Your task to perform on an android device: allow cookies in the chrome app Image 0: 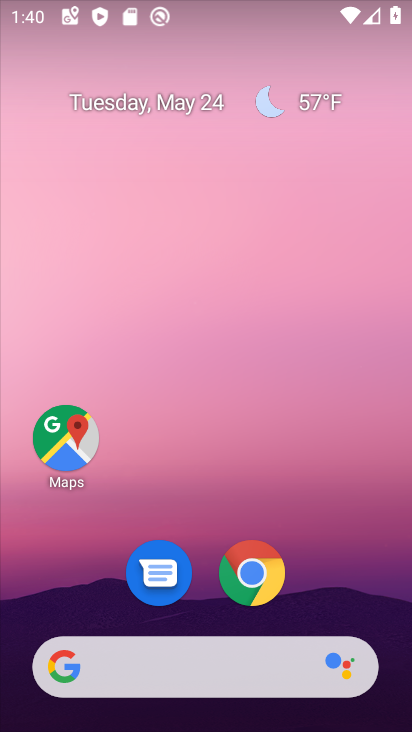
Step 0: click (262, 582)
Your task to perform on an android device: allow cookies in the chrome app Image 1: 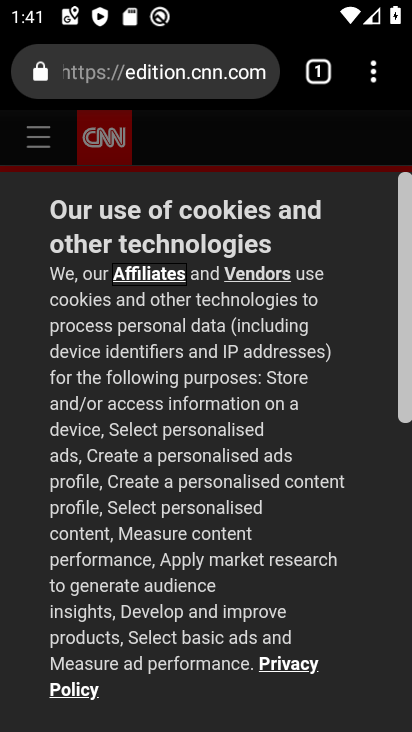
Step 1: click (371, 84)
Your task to perform on an android device: allow cookies in the chrome app Image 2: 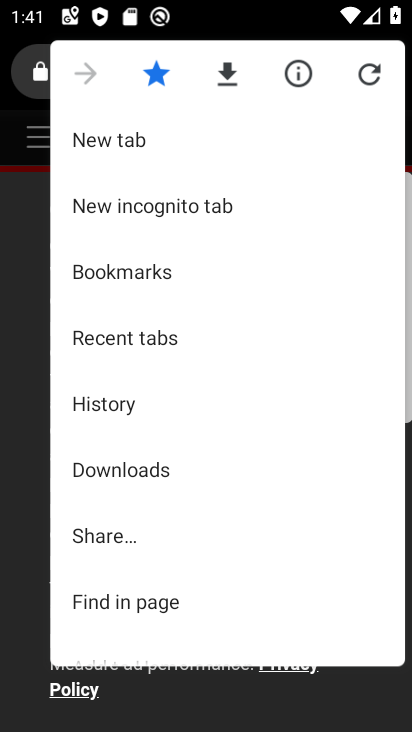
Step 2: drag from (235, 584) to (235, 319)
Your task to perform on an android device: allow cookies in the chrome app Image 3: 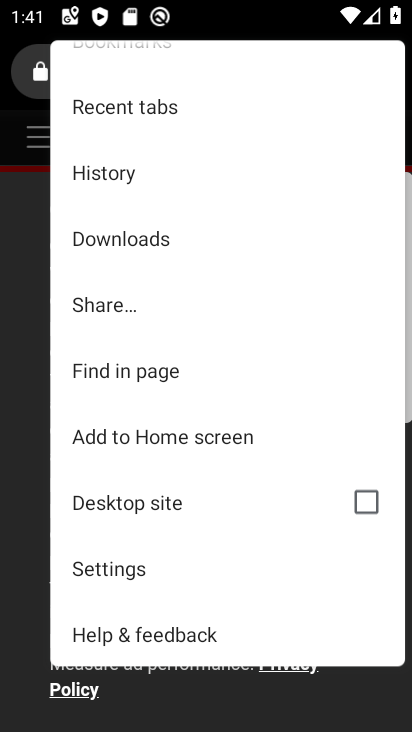
Step 3: click (129, 568)
Your task to perform on an android device: allow cookies in the chrome app Image 4: 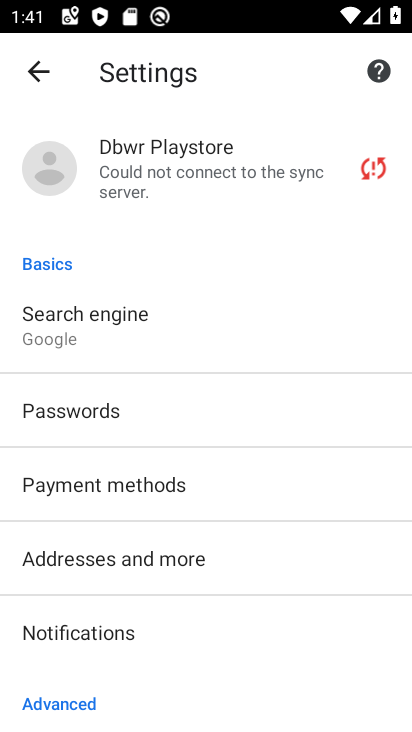
Step 4: drag from (279, 668) to (270, 350)
Your task to perform on an android device: allow cookies in the chrome app Image 5: 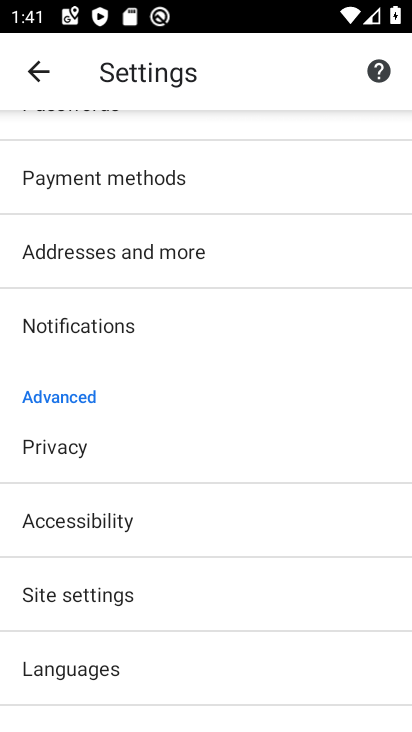
Step 5: click (151, 606)
Your task to perform on an android device: allow cookies in the chrome app Image 6: 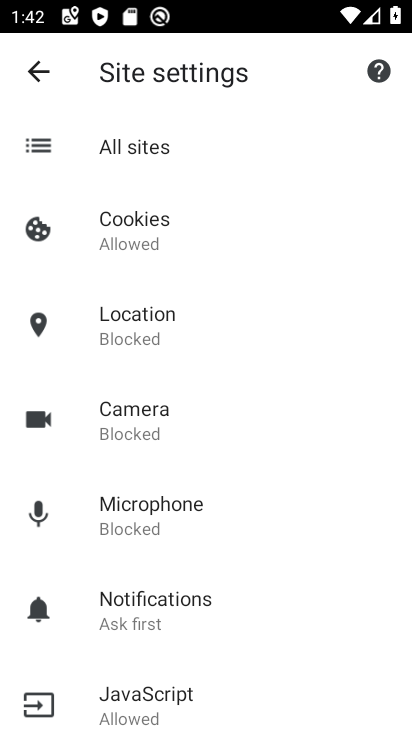
Step 6: click (169, 225)
Your task to perform on an android device: allow cookies in the chrome app Image 7: 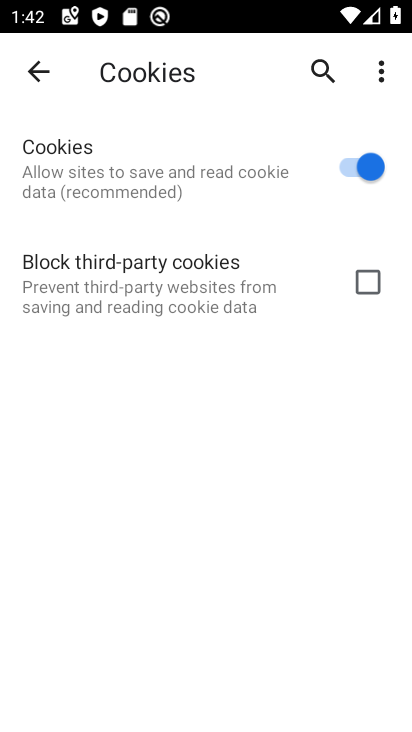
Step 7: task complete